Your task to perform on an android device: Go to Google maps Image 0: 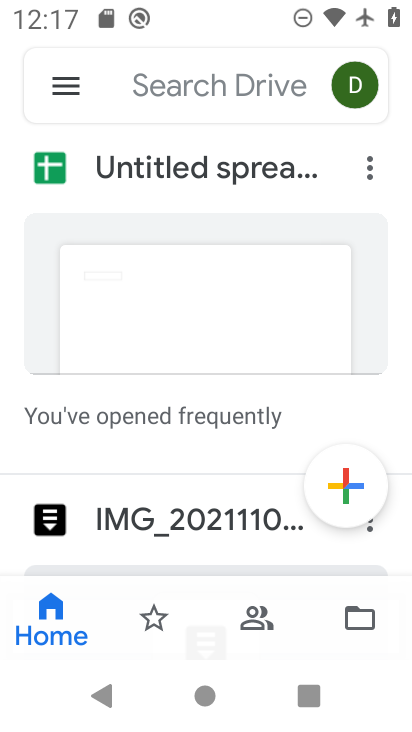
Step 0: press back button
Your task to perform on an android device: Go to Google maps Image 1: 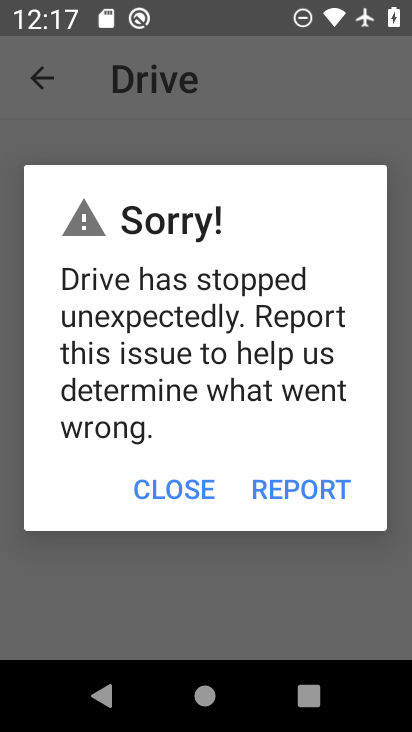
Step 1: press back button
Your task to perform on an android device: Go to Google maps Image 2: 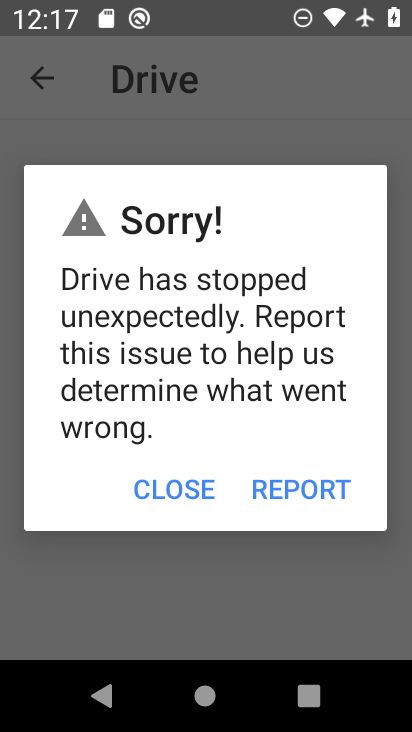
Step 2: press home button
Your task to perform on an android device: Go to Google maps Image 3: 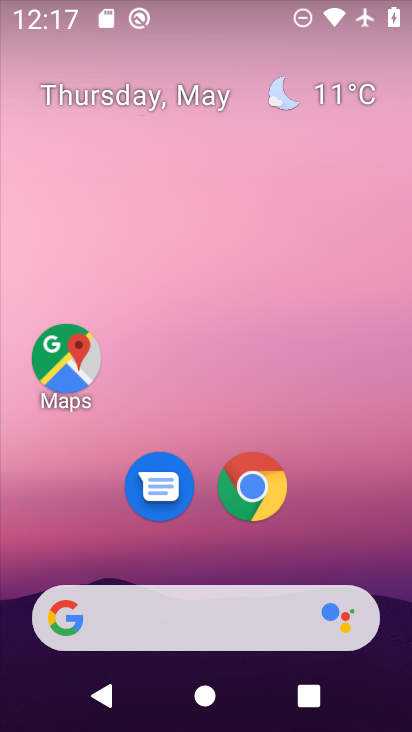
Step 3: click (68, 356)
Your task to perform on an android device: Go to Google maps Image 4: 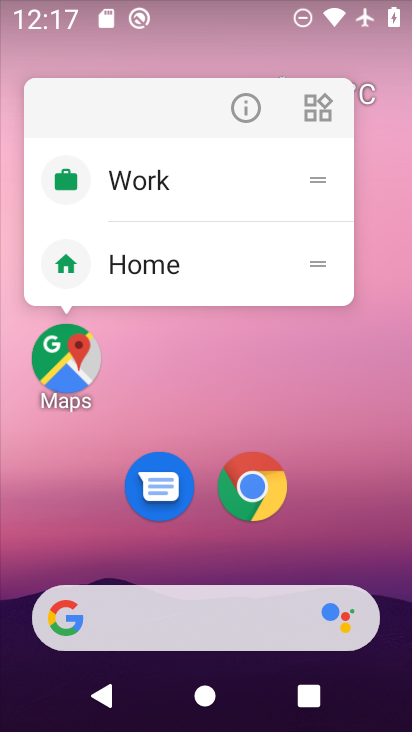
Step 4: click (70, 355)
Your task to perform on an android device: Go to Google maps Image 5: 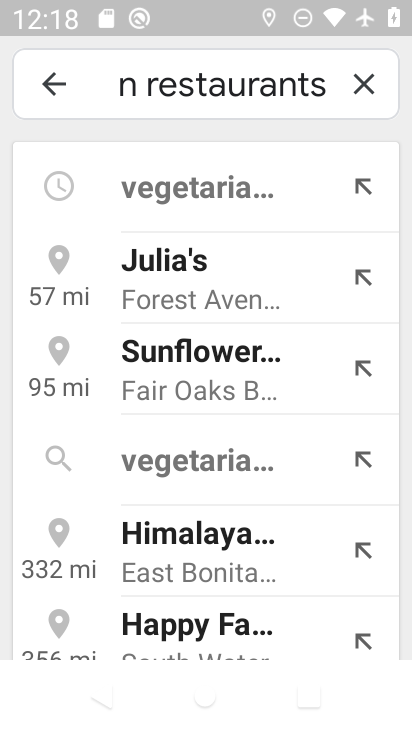
Step 5: click (59, 73)
Your task to perform on an android device: Go to Google maps Image 6: 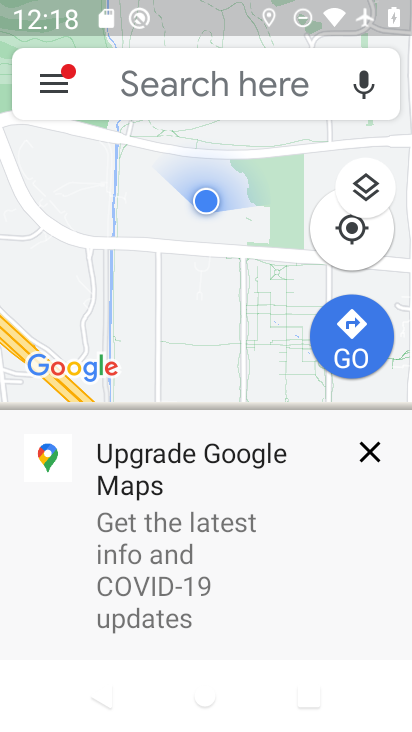
Step 6: click (370, 444)
Your task to perform on an android device: Go to Google maps Image 7: 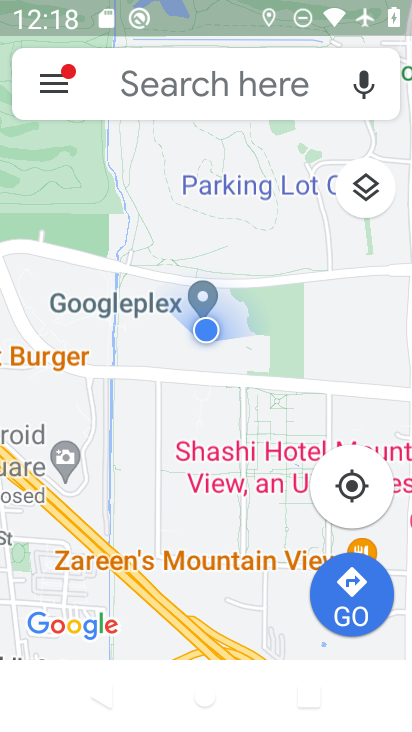
Step 7: task complete